Your task to perform on an android device: find which apps use the phone's location Image 0: 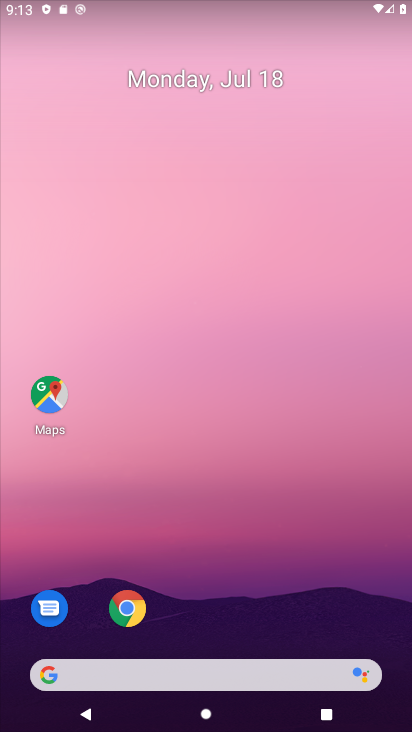
Step 0: drag from (228, 691) to (190, 237)
Your task to perform on an android device: find which apps use the phone's location Image 1: 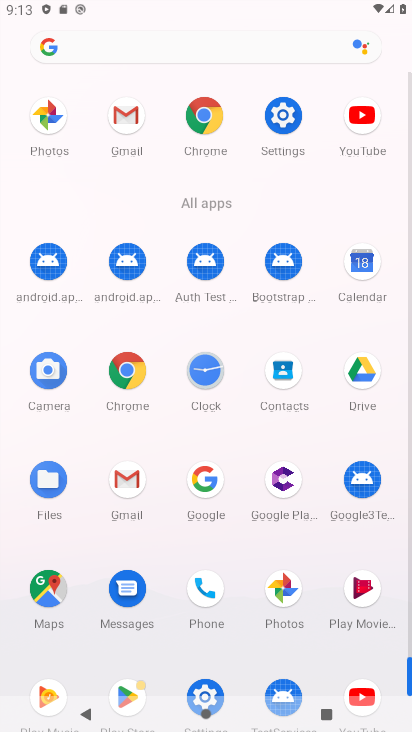
Step 1: click (294, 121)
Your task to perform on an android device: find which apps use the phone's location Image 2: 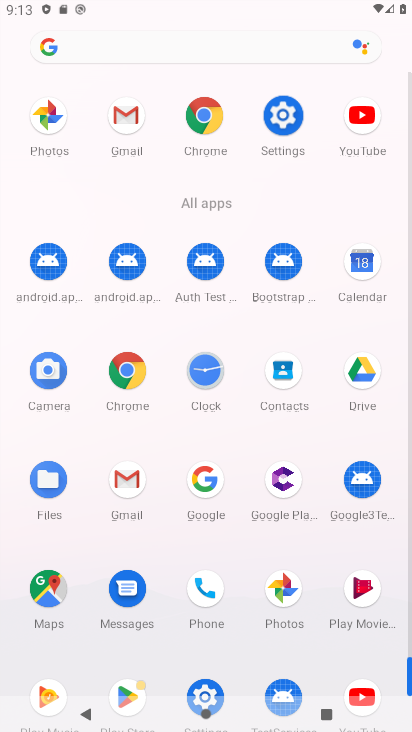
Step 2: click (294, 121)
Your task to perform on an android device: find which apps use the phone's location Image 3: 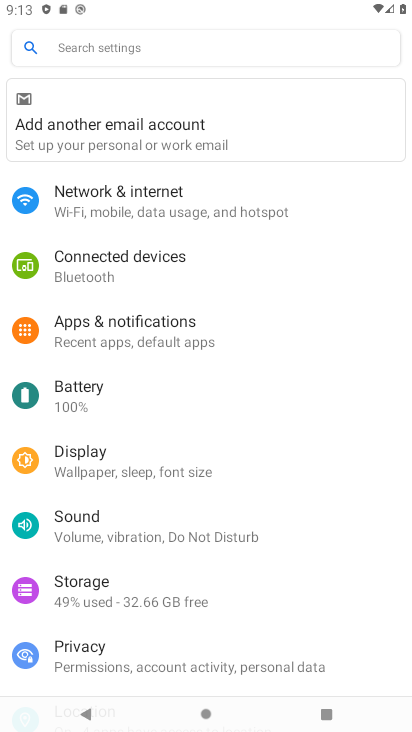
Step 3: drag from (124, 578) to (88, 257)
Your task to perform on an android device: find which apps use the phone's location Image 4: 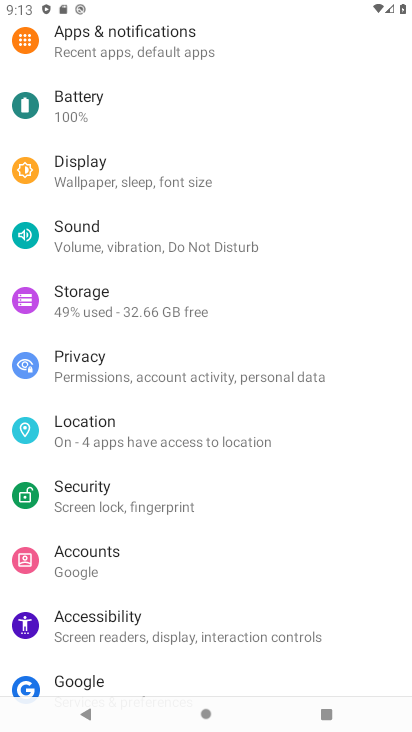
Step 4: drag from (130, 487) to (130, 284)
Your task to perform on an android device: find which apps use the phone's location Image 5: 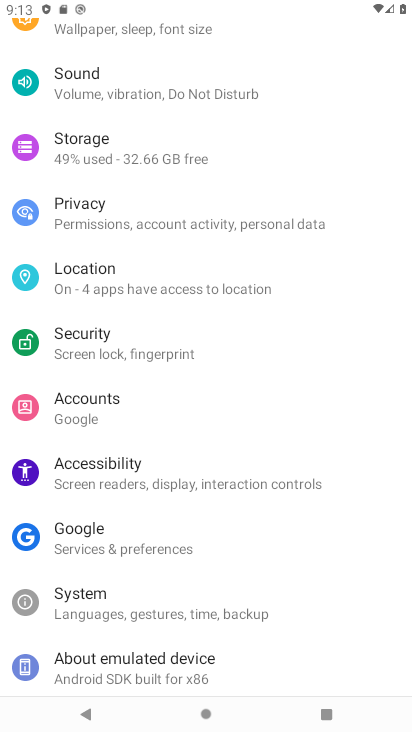
Step 5: click (86, 275)
Your task to perform on an android device: find which apps use the phone's location Image 6: 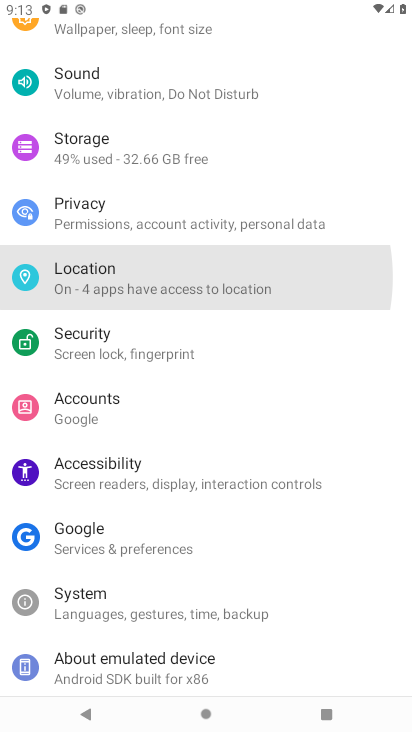
Step 6: click (86, 275)
Your task to perform on an android device: find which apps use the phone's location Image 7: 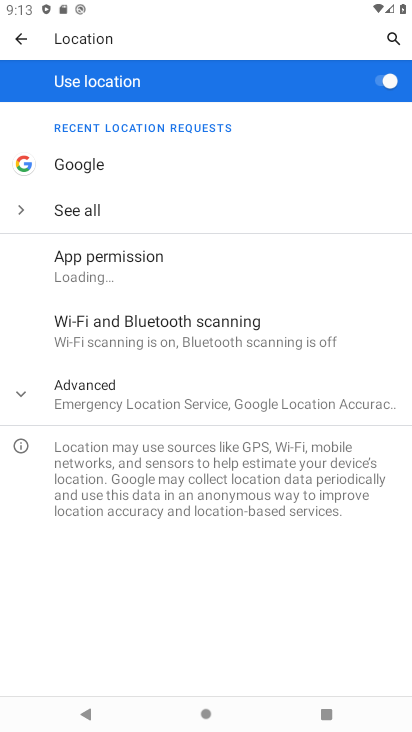
Step 7: click (85, 275)
Your task to perform on an android device: find which apps use the phone's location Image 8: 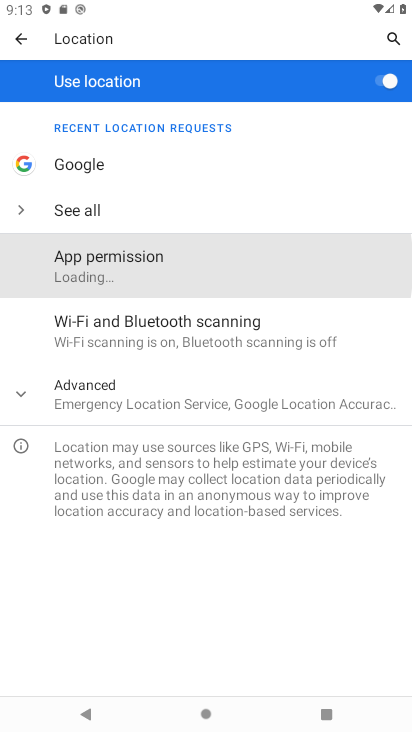
Step 8: click (85, 275)
Your task to perform on an android device: find which apps use the phone's location Image 9: 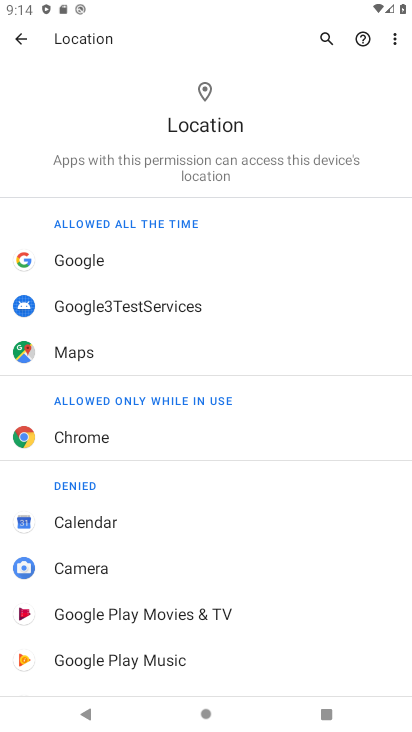
Step 9: task complete